Your task to perform on an android device: change the upload size in google photos Image 0: 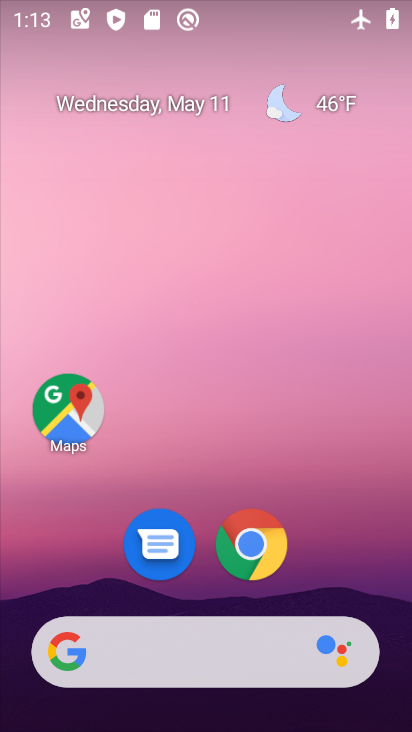
Step 0: drag from (395, 640) to (321, 111)
Your task to perform on an android device: change the upload size in google photos Image 1: 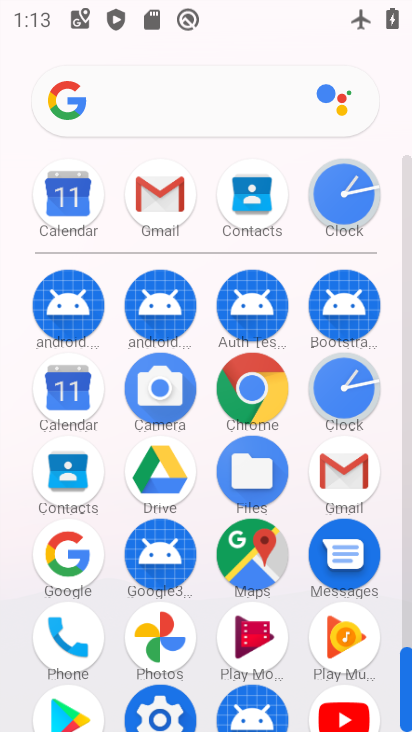
Step 1: click (406, 627)
Your task to perform on an android device: change the upload size in google photos Image 2: 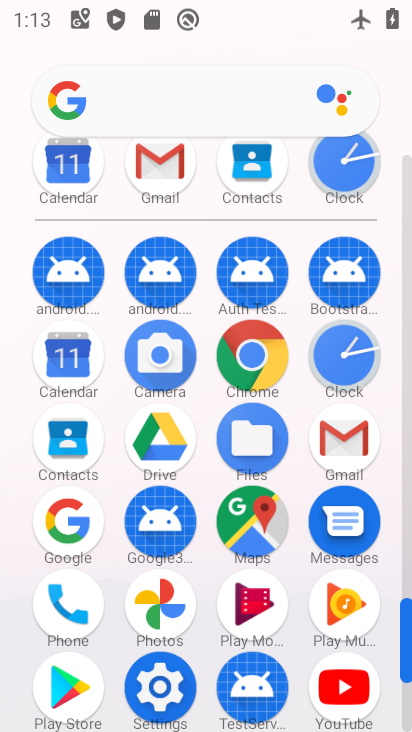
Step 2: click (161, 603)
Your task to perform on an android device: change the upload size in google photos Image 3: 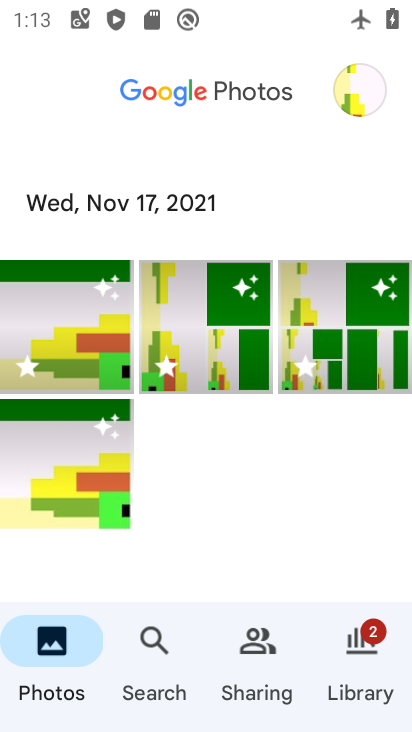
Step 3: click (355, 98)
Your task to perform on an android device: change the upload size in google photos Image 4: 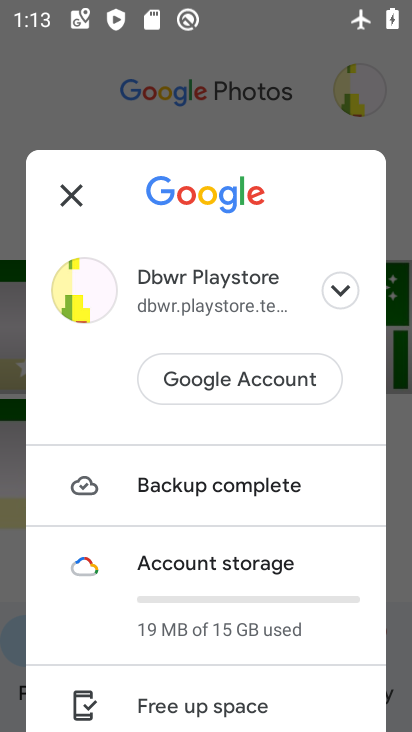
Step 4: drag from (270, 659) to (263, 246)
Your task to perform on an android device: change the upload size in google photos Image 5: 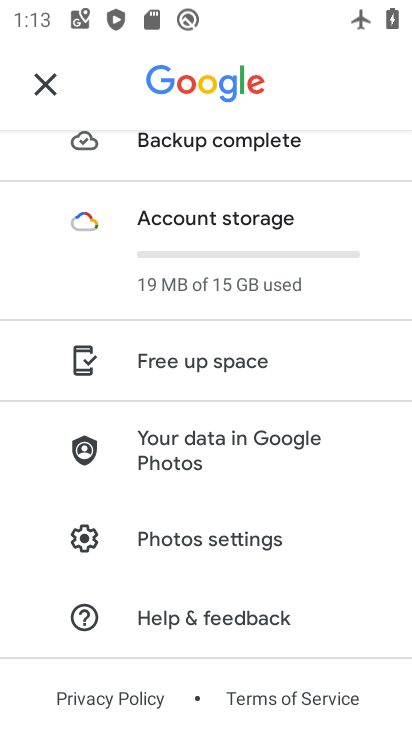
Step 5: click (169, 535)
Your task to perform on an android device: change the upload size in google photos Image 6: 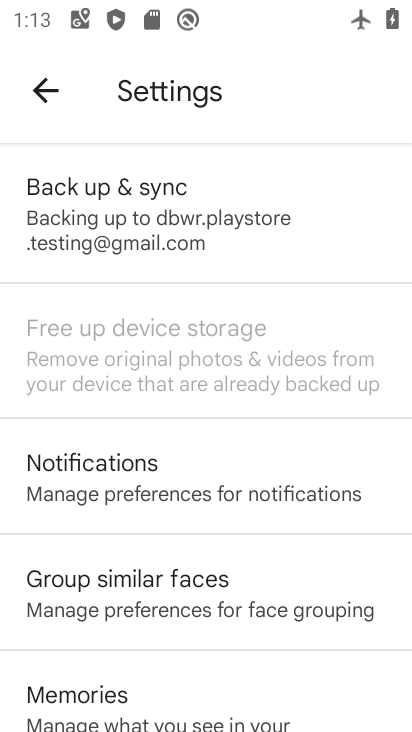
Step 6: click (111, 213)
Your task to perform on an android device: change the upload size in google photos Image 7: 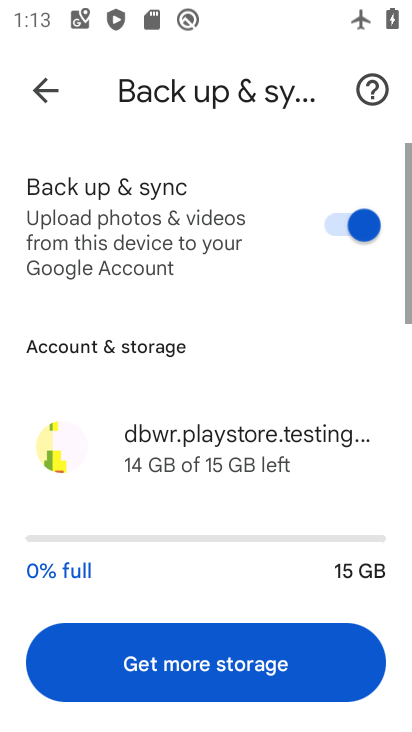
Step 7: drag from (257, 546) to (234, 126)
Your task to perform on an android device: change the upload size in google photos Image 8: 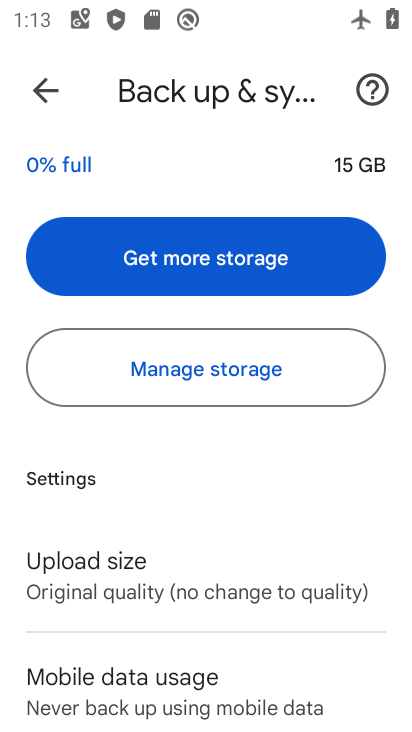
Step 8: click (83, 575)
Your task to perform on an android device: change the upload size in google photos Image 9: 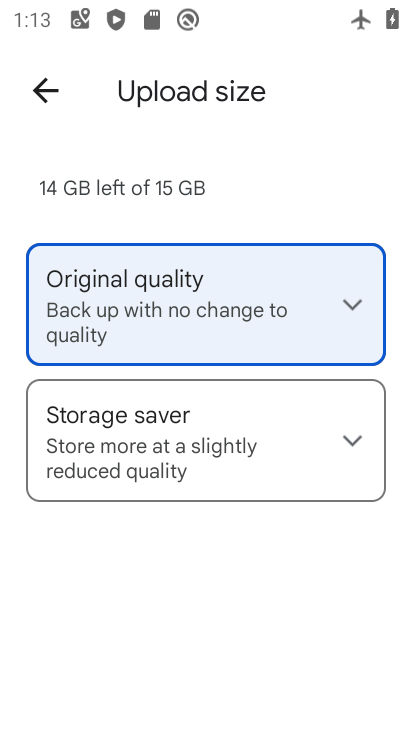
Step 9: click (346, 441)
Your task to perform on an android device: change the upload size in google photos Image 10: 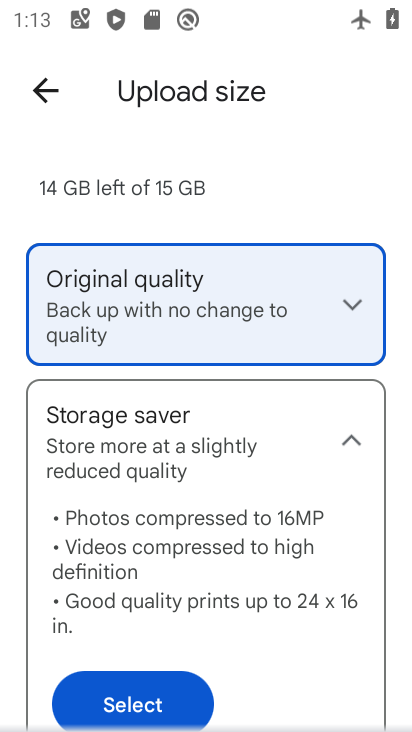
Step 10: click (127, 704)
Your task to perform on an android device: change the upload size in google photos Image 11: 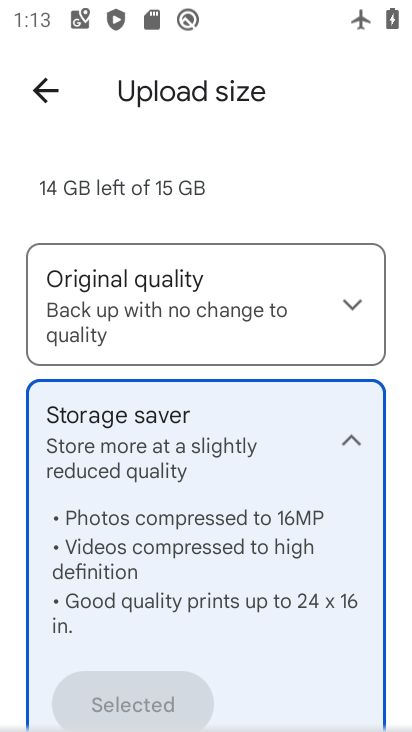
Step 11: click (350, 436)
Your task to perform on an android device: change the upload size in google photos Image 12: 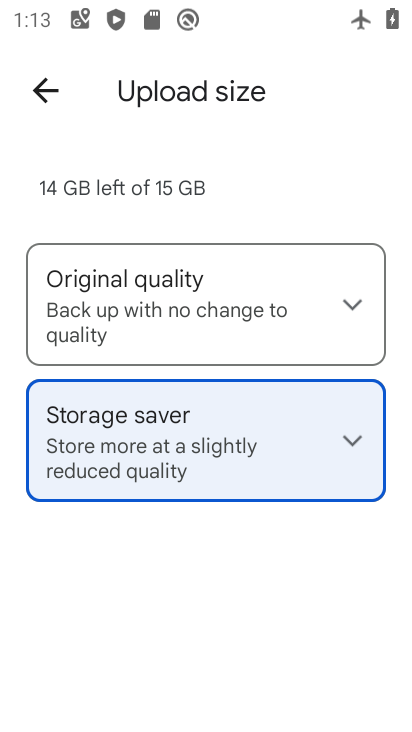
Step 12: task complete